Your task to perform on an android device: check the backup settings in the google photos Image 0: 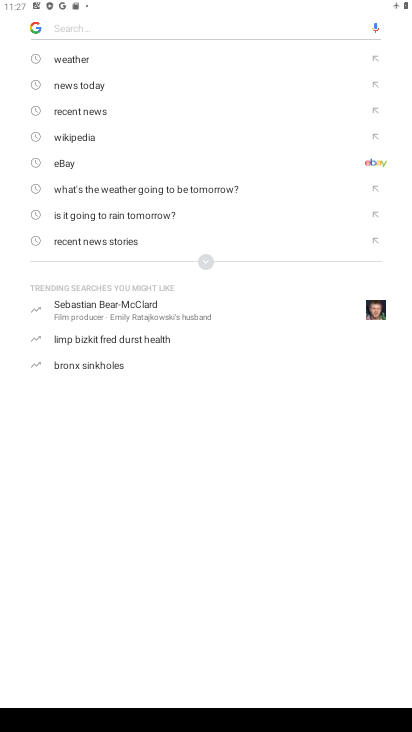
Step 0: press home button
Your task to perform on an android device: check the backup settings in the google photos Image 1: 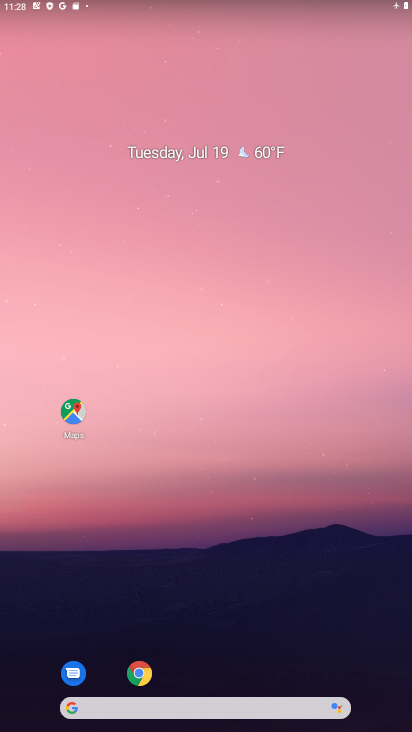
Step 1: drag from (391, 681) to (338, 140)
Your task to perform on an android device: check the backup settings in the google photos Image 2: 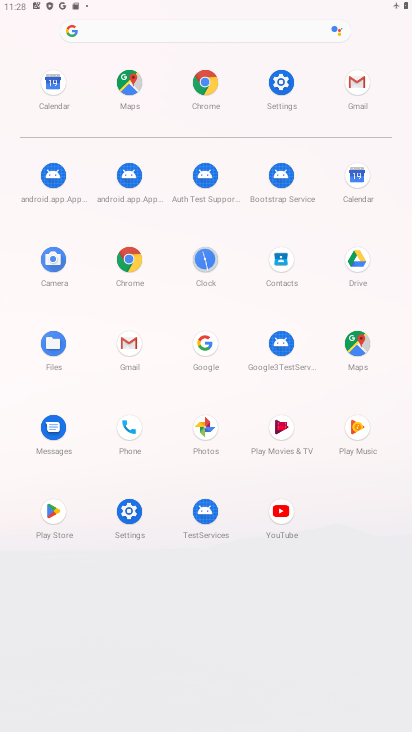
Step 2: click (204, 425)
Your task to perform on an android device: check the backup settings in the google photos Image 3: 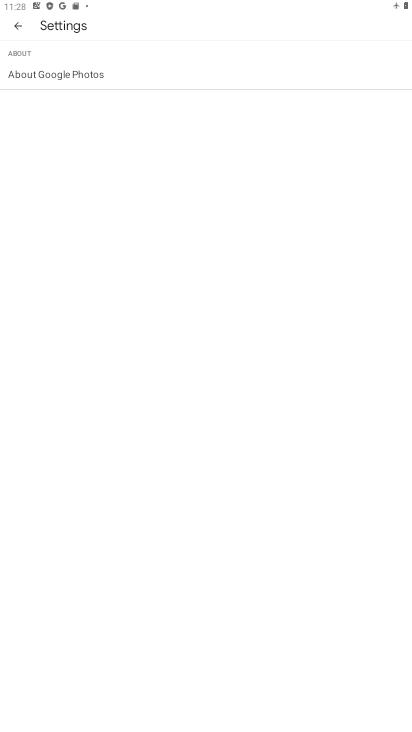
Step 3: press back button
Your task to perform on an android device: check the backup settings in the google photos Image 4: 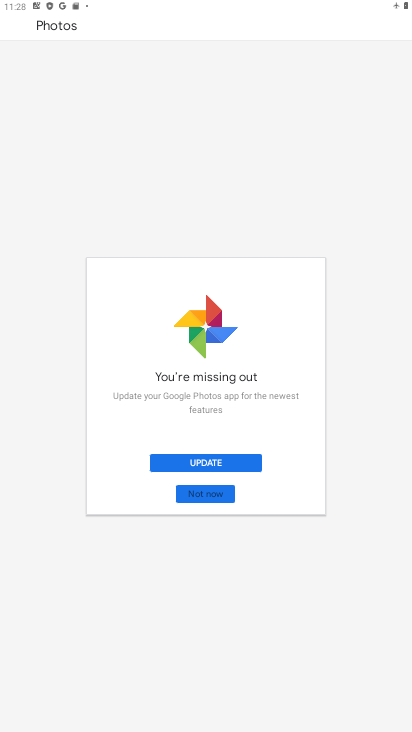
Step 4: click (203, 462)
Your task to perform on an android device: check the backup settings in the google photos Image 5: 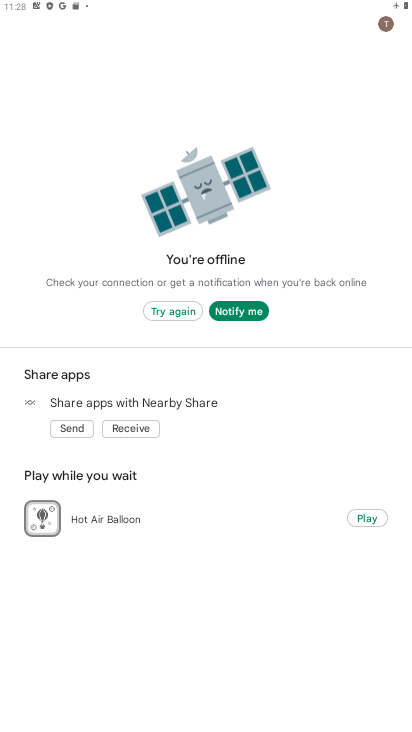
Step 5: click (168, 309)
Your task to perform on an android device: check the backup settings in the google photos Image 6: 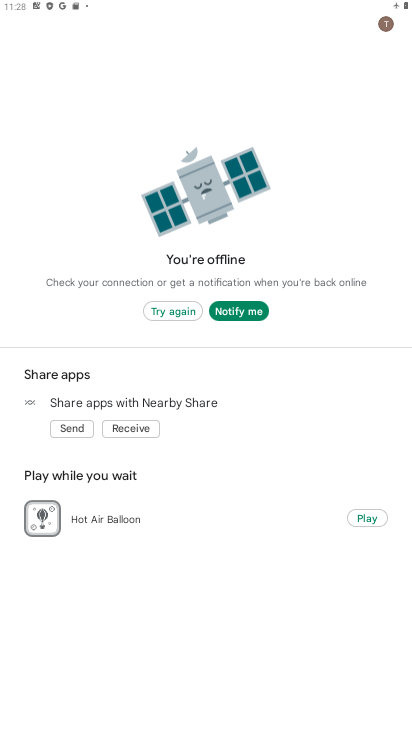
Step 6: click (168, 309)
Your task to perform on an android device: check the backup settings in the google photos Image 7: 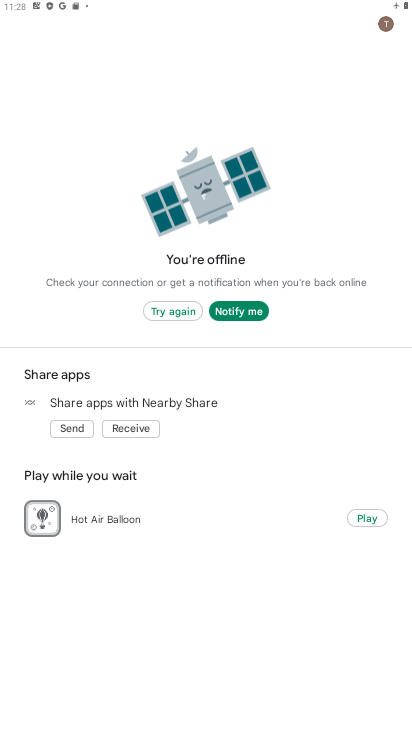
Step 7: click (168, 309)
Your task to perform on an android device: check the backup settings in the google photos Image 8: 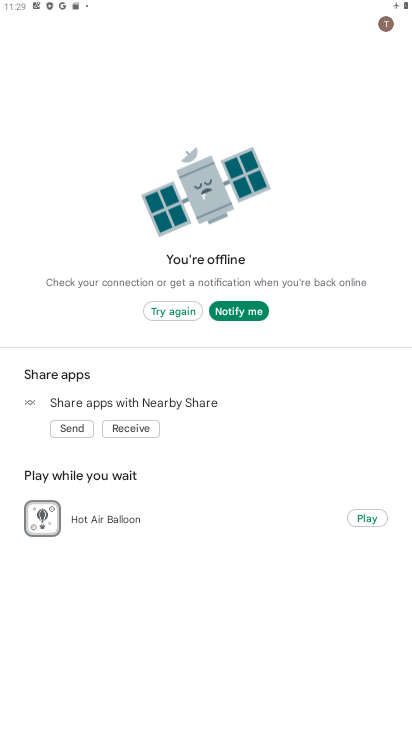
Step 8: click (168, 309)
Your task to perform on an android device: check the backup settings in the google photos Image 9: 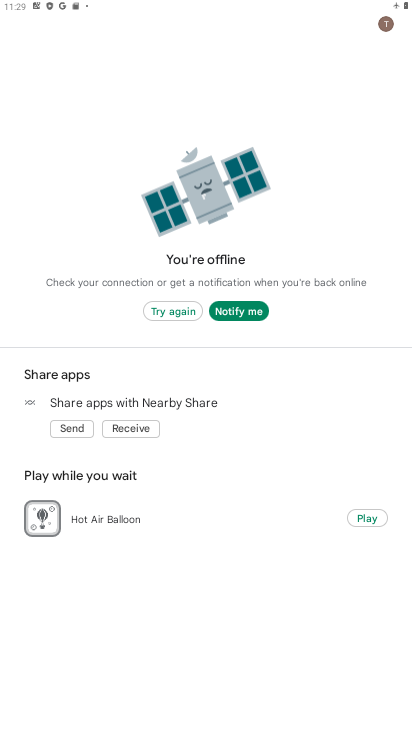
Step 9: task complete